Your task to perform on an android device: check google app version Image 0: 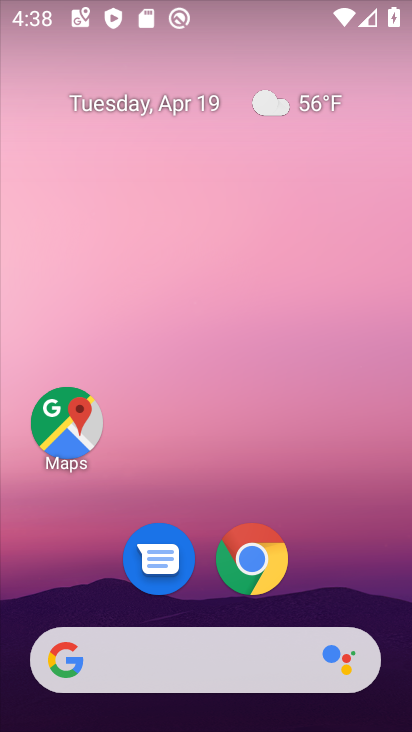
Step 0: click (335, 44)
Your task to perform on an android device: check google app version Image 1: 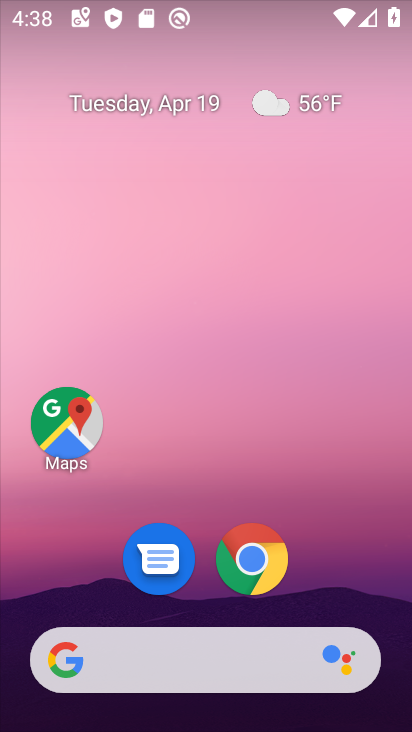
Step 1: drag from (356, 420) to (355, 236)
Your task to perform on an android device: check google app version Image 2: 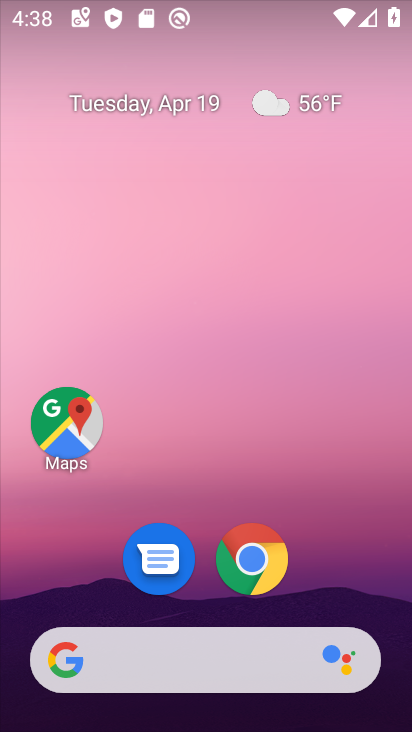
Step 2: drag from (344, 590) to (263, 123)
Your task to perform on an android device: check google app version Image 3: 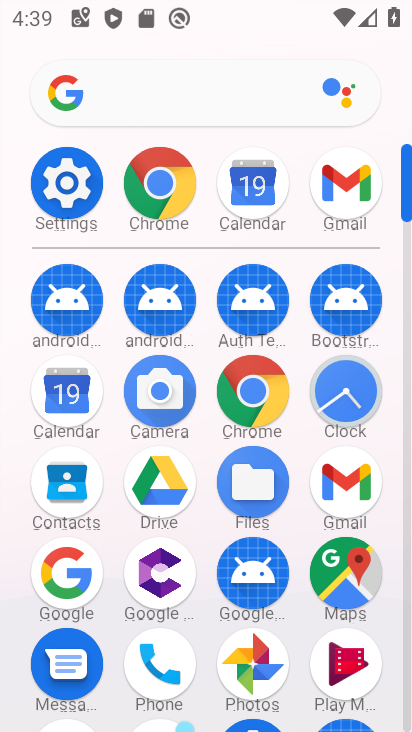
Step 3: click (72, 565)
Your task to perform on an android device: check google app version Image 4: 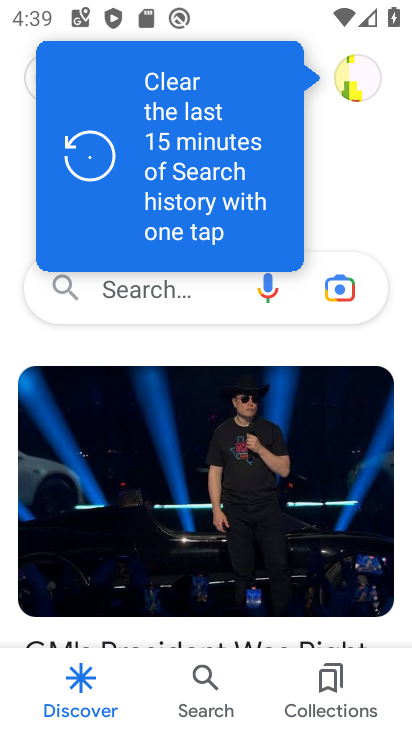
Step 4: press back button
Your task to perform on an android device: check google app version Image 5: 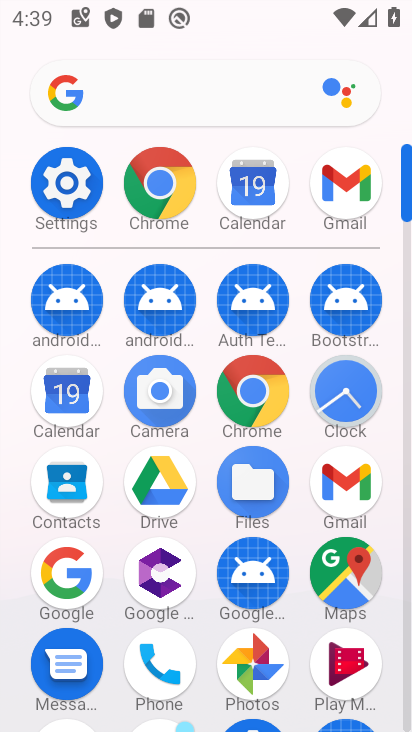
Step 5: click (65, 557)
Your task to perform on an android device: check google app version Image 6: 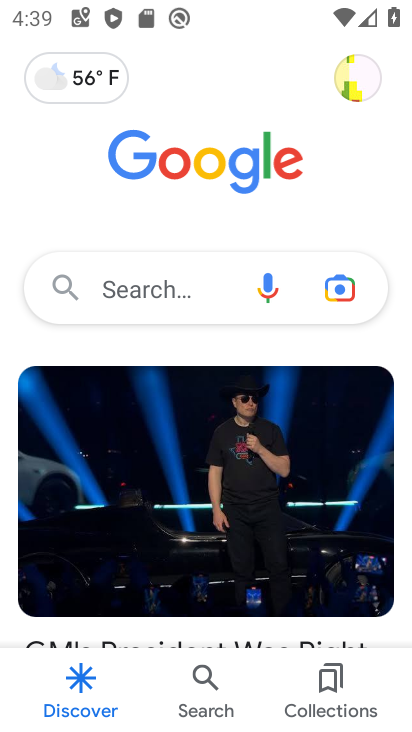
Step 6: click (363, 71)
Your task to perform on an android device: check google app version Image 7: 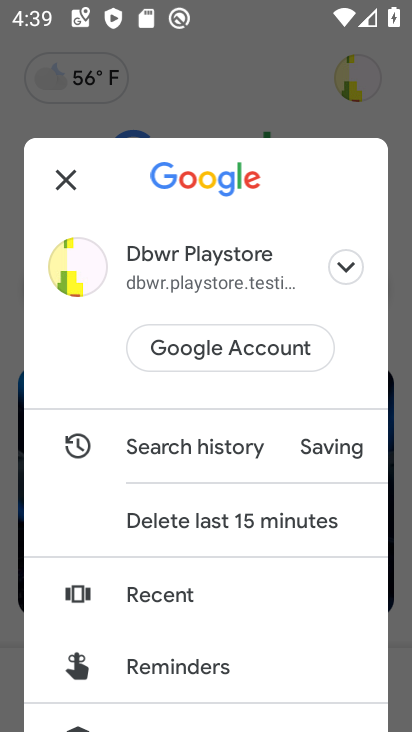
Step 7: task complete